Your task to perform on an android device: Empty the shopping cart on newegg. Add "usb-a" to the cart on newegg Image 0: 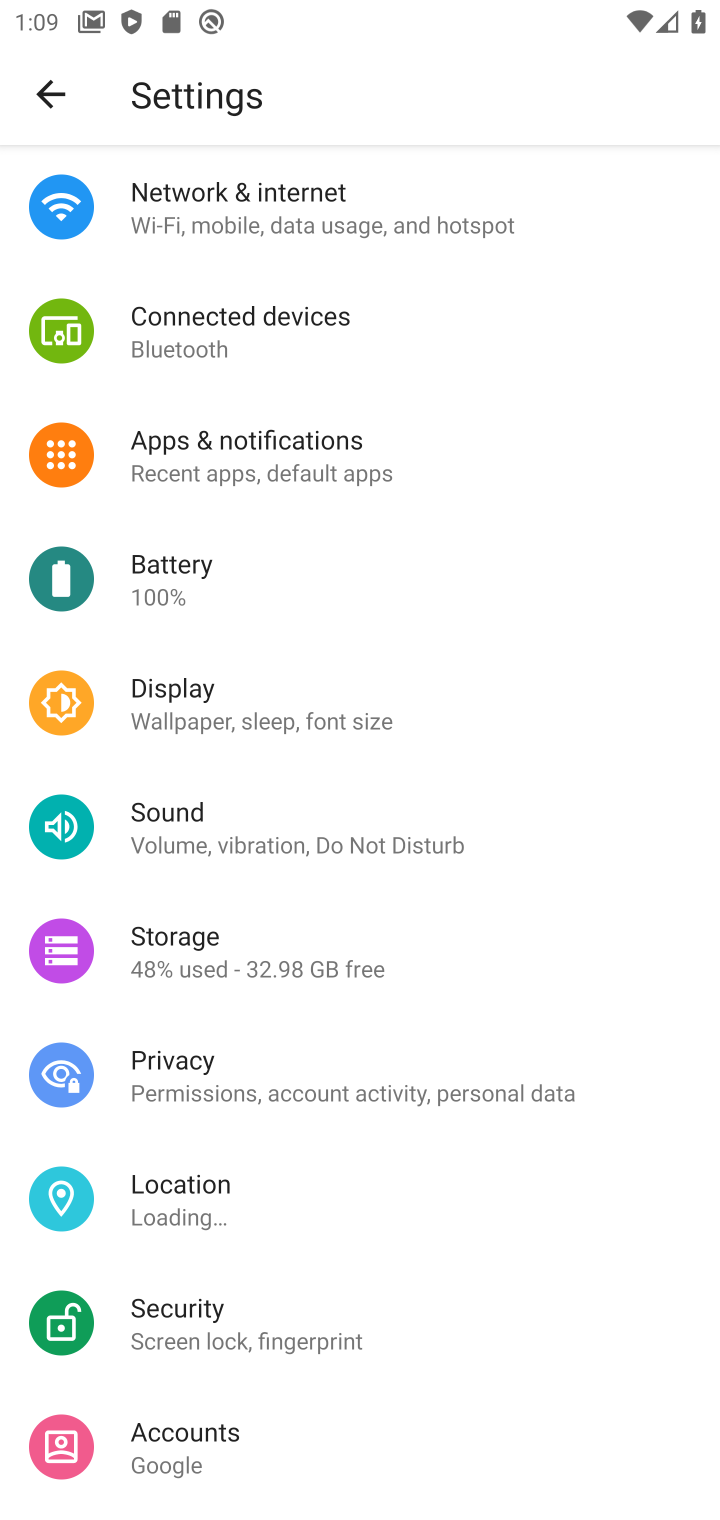
Step 0: press home button
Your task to perform on an android device: Empty the shopping cart on newegg. Add "usb-a" to the cart on newegg Image 1: 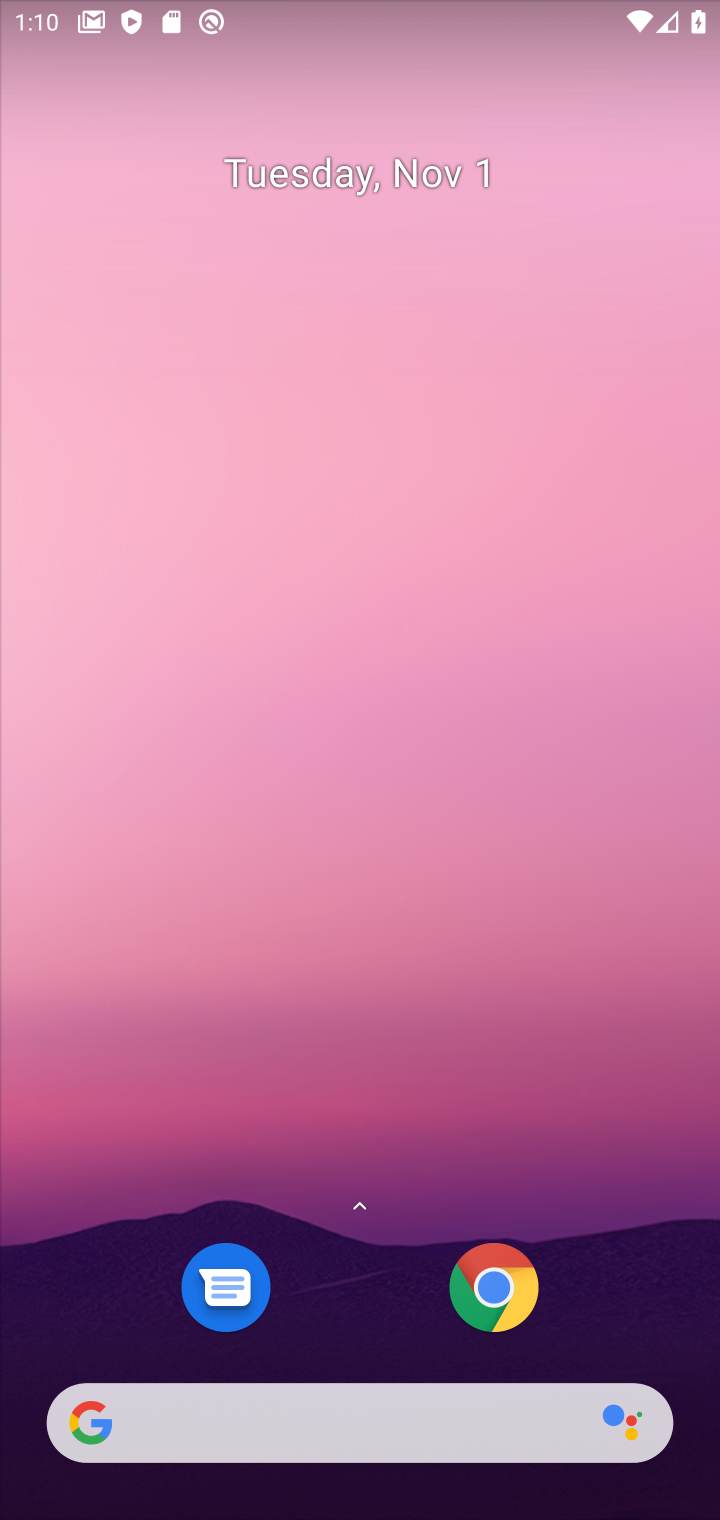
Step 1: click (562, 203)
Your task to perform on an android device: Empty the shopping cart on newegg. Add "usb-a" to the cart on newegg Image 2: 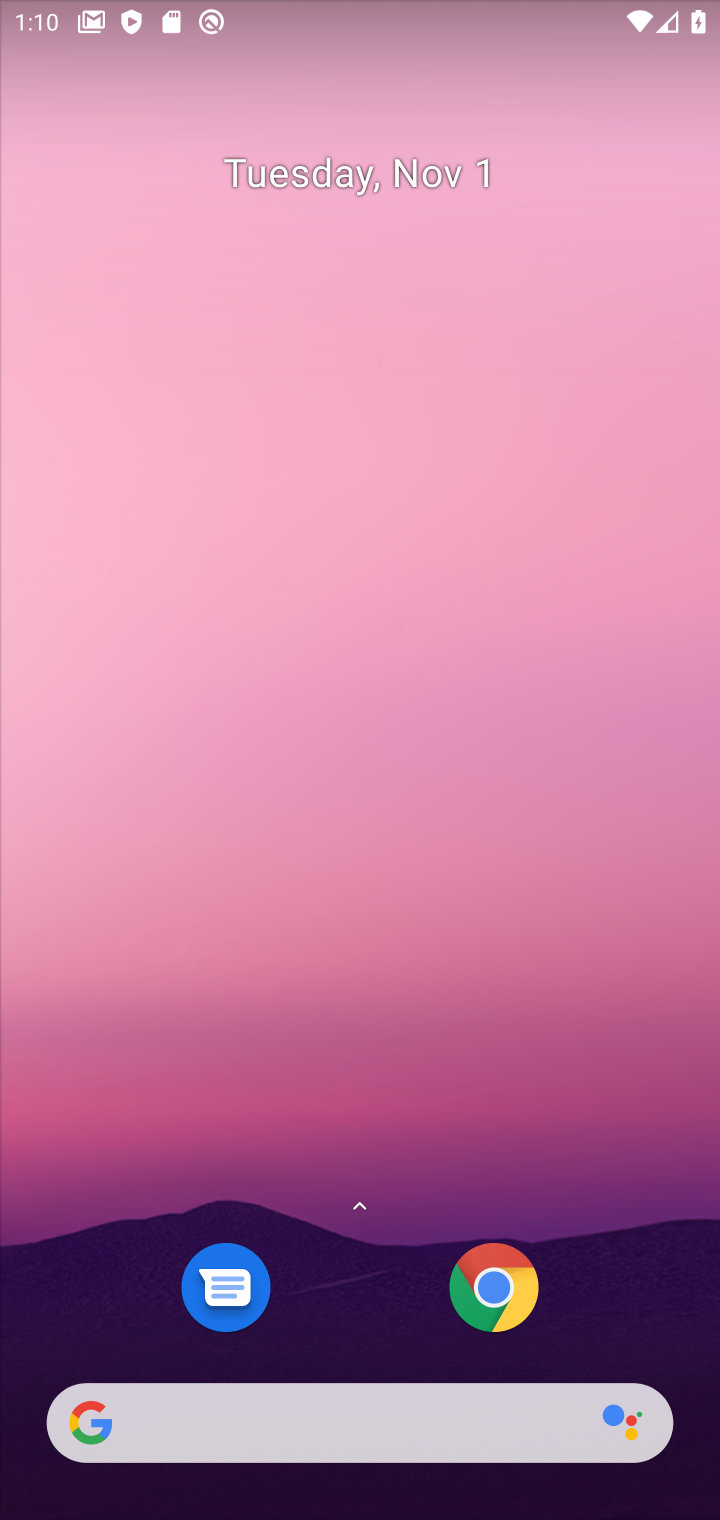
Step 2: drag from (573, 1191) to (517, 276)
Your task to perform on an android device: Empty the shopping cart on newegg. Add "usb-a" to the cart on newegg Image 3: 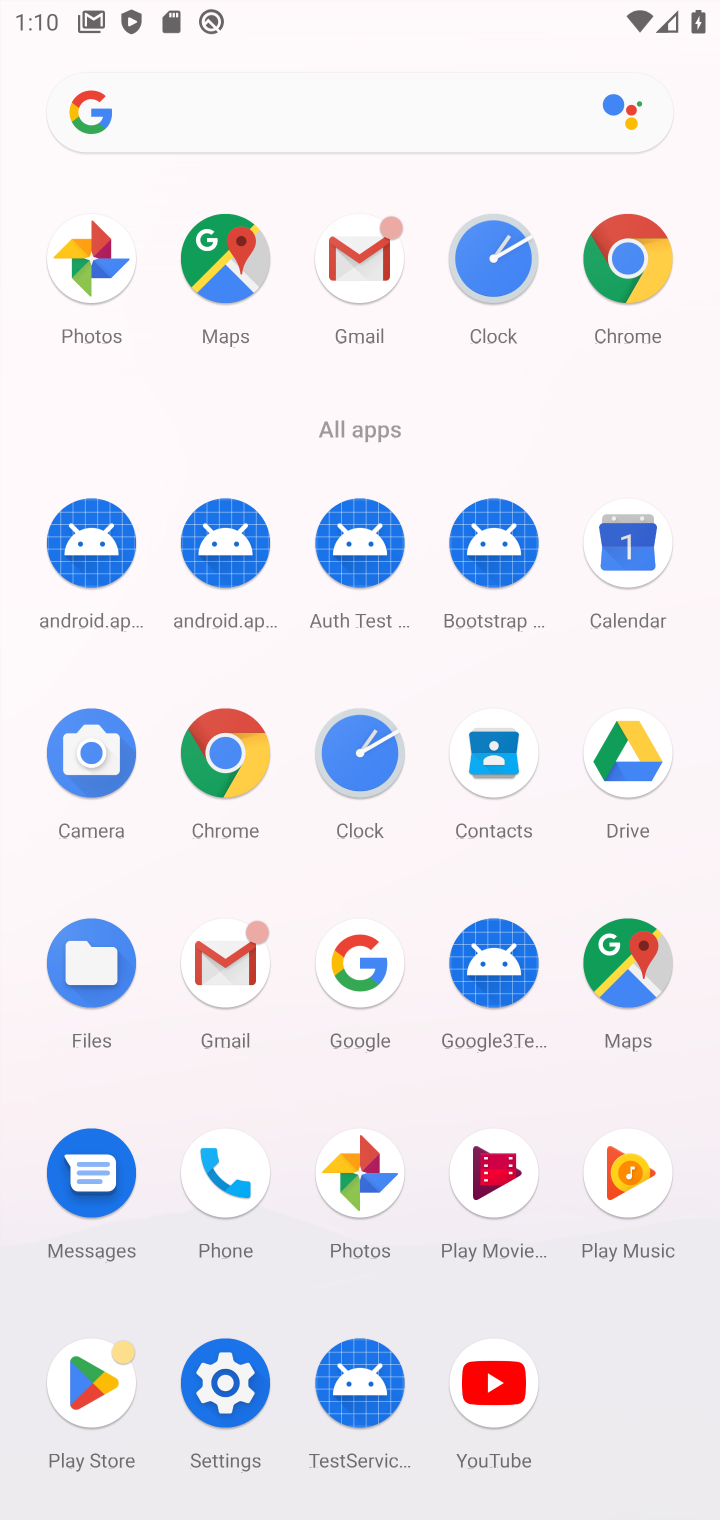
Step 3: click (228, 741)
Your task to perform on an android device: Empty the shopping cart on newegg. Add "usb-a" to the cart on newegg Image 4: 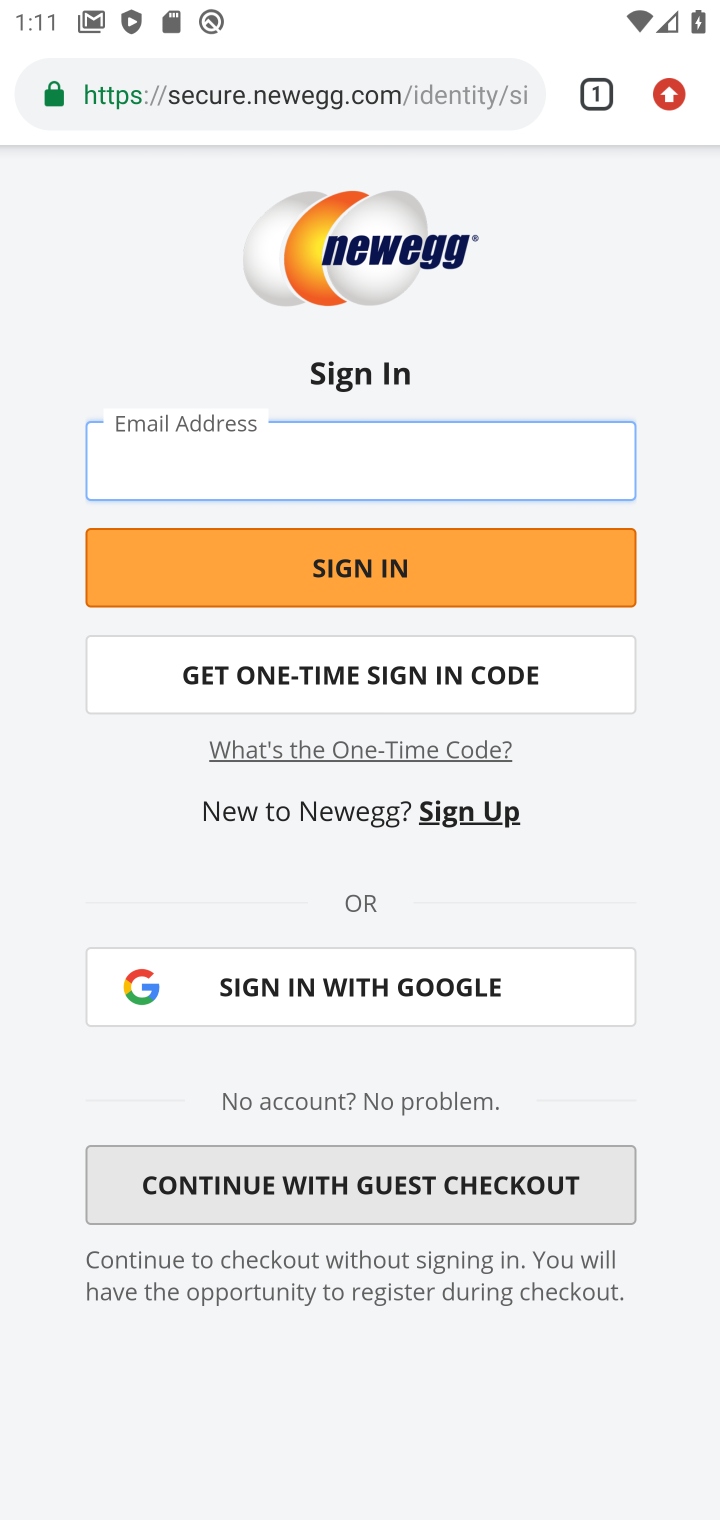
Step 4: click (449, 127)
Your task to perform on an android device: Empty the shopping cart on newegg. Add "usb-a" to the cart on newegg Image 5: 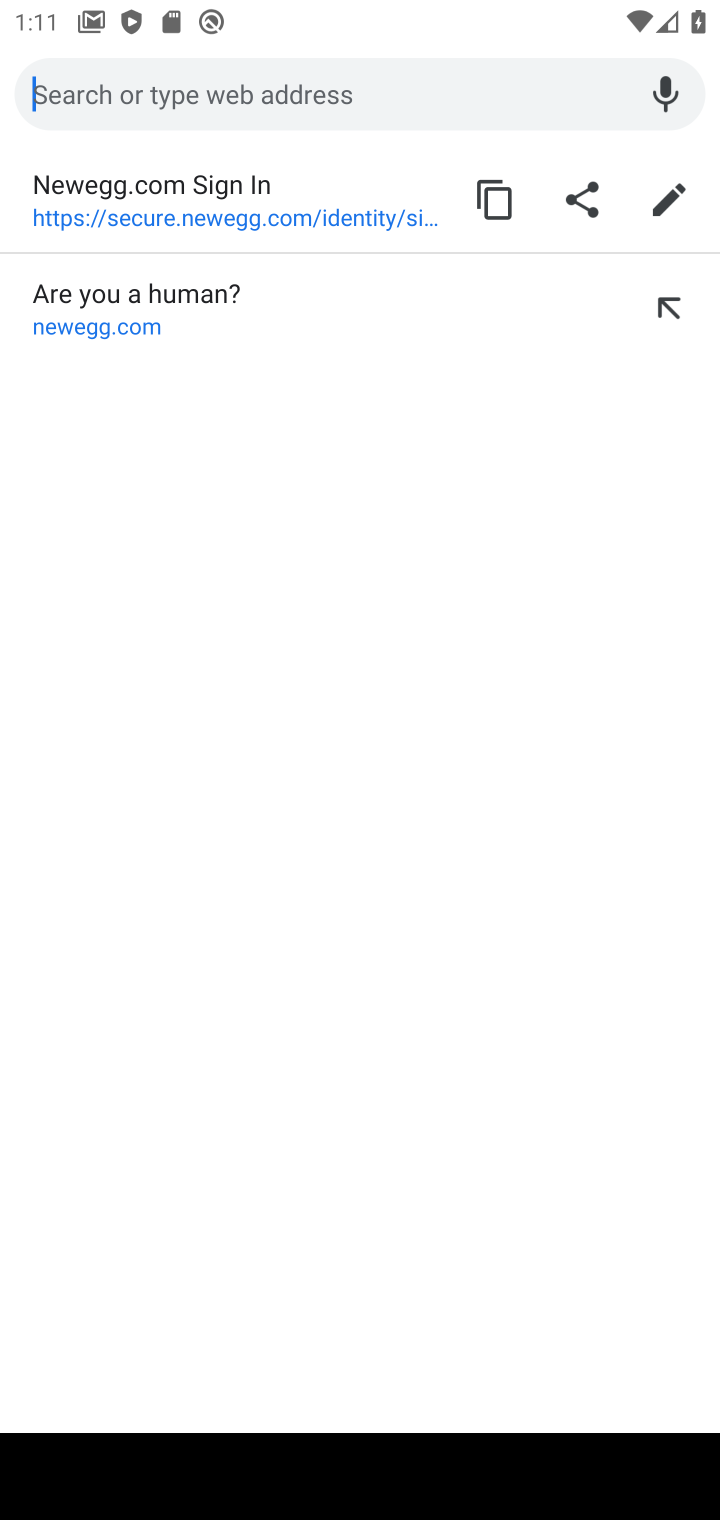
Step 5: type "newegg.com"
Your task to perform on an android device: Empty the shopping cart on newegg. Add "usb-a" to the cart on newegg Image 6: 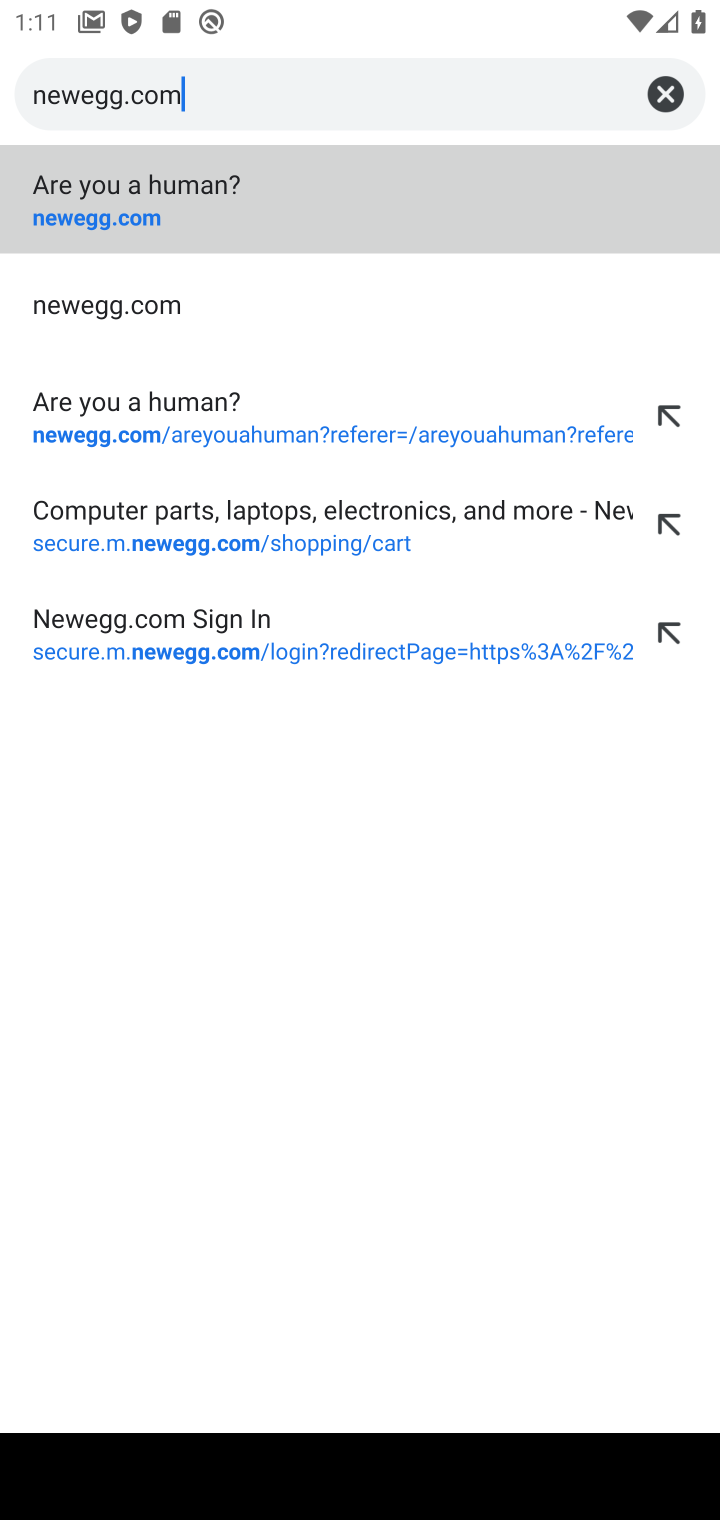
Step 6: press enter
Your task to perform on an android device: Empty the shopping cart on newegg. Add "usb-a" to the cart on newegg Image 7: 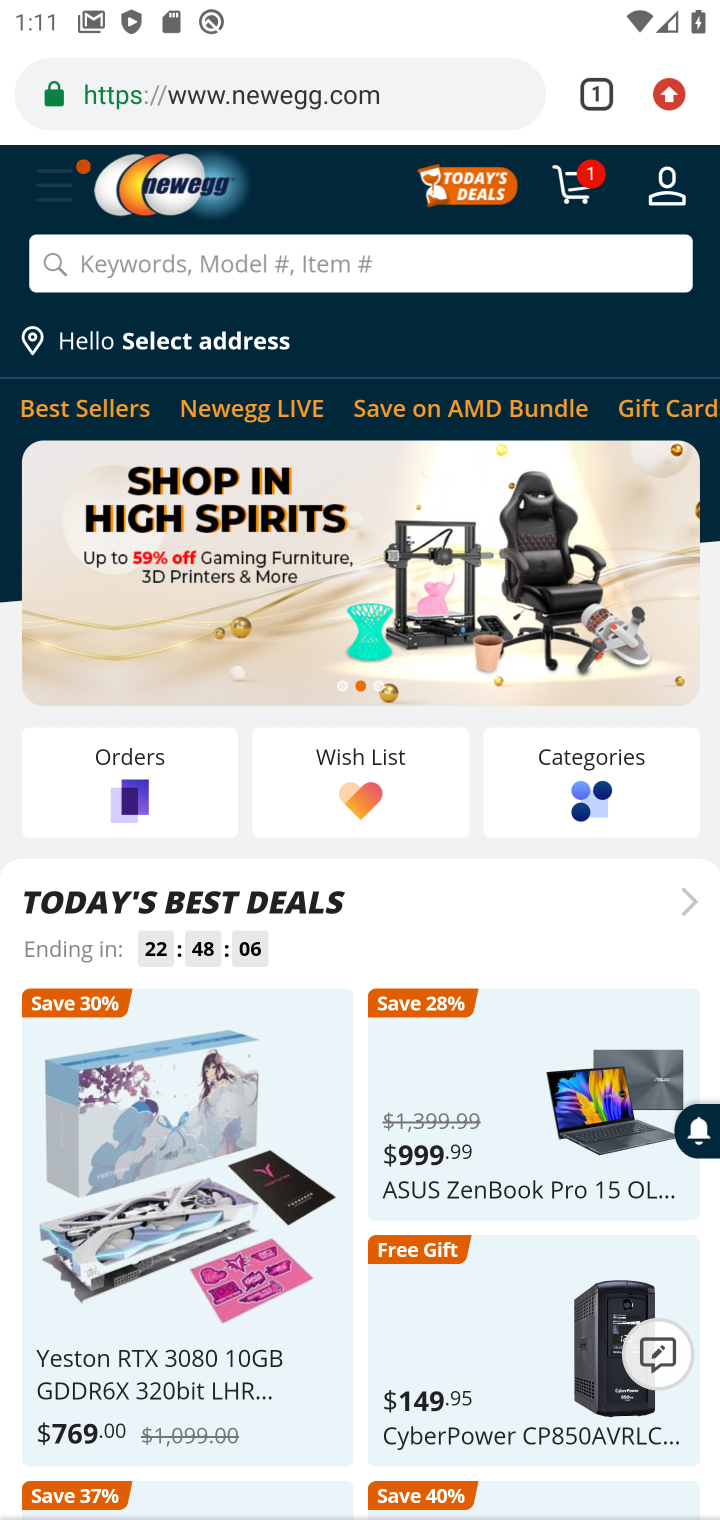
Step 7: click (597, 190)
Your task to perform on an android device: Empty the shopping cart on newegg. Add "usb-a" to the cart on newegg Image 8: 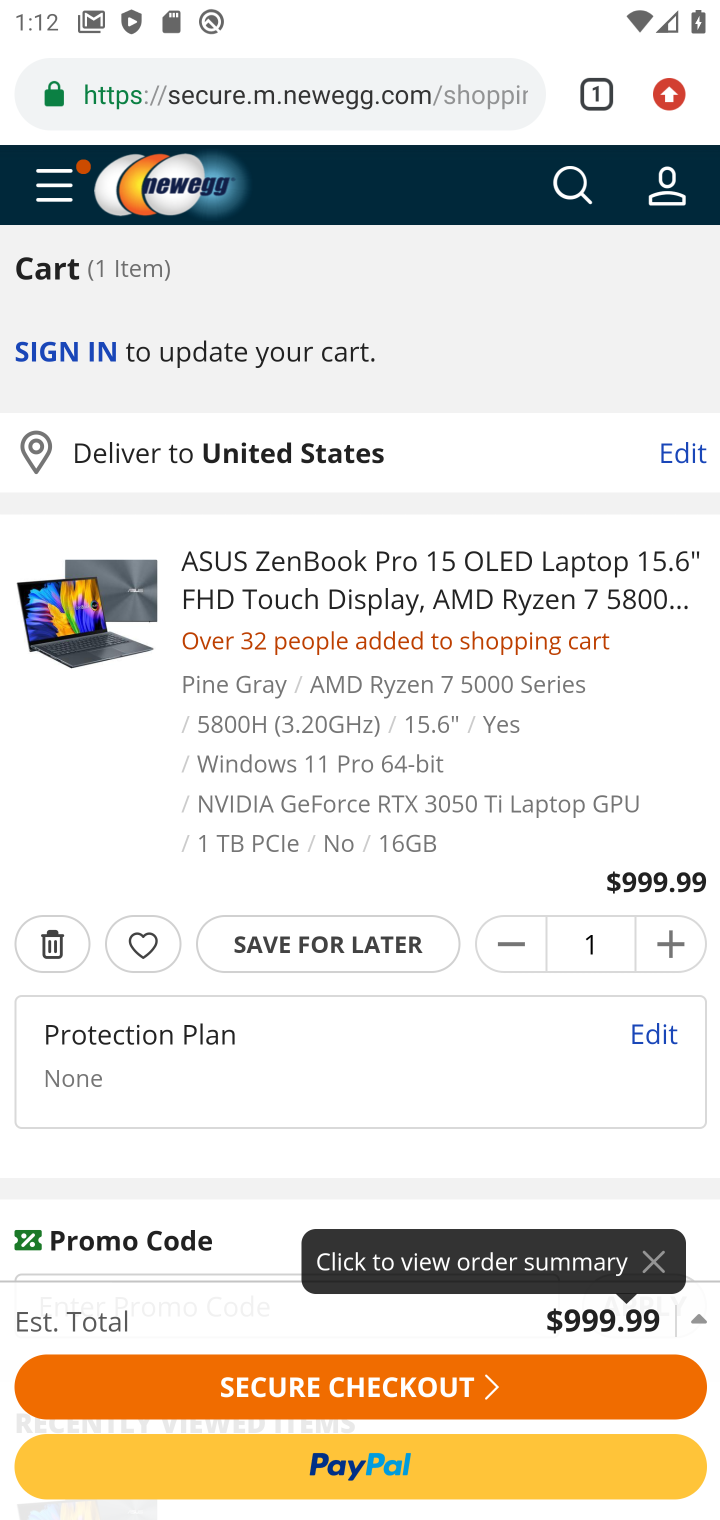
Step 8: click (58, 947)
Your task to perform on an android device: Empty the shopping cart on newegg. Add "usb-a" to the cart on newegg Image 9: 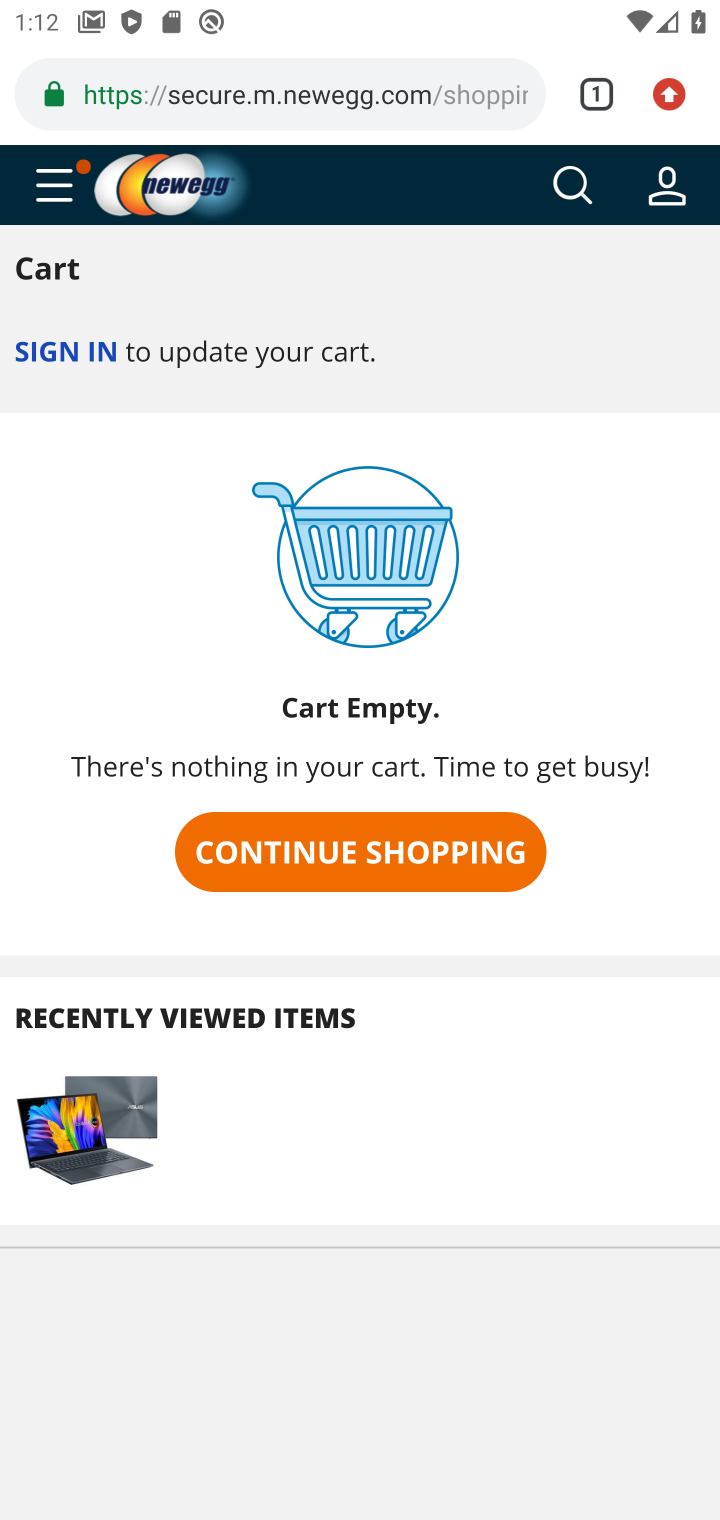
Step 9: click (585, 192)
Your task to perform on an android device: Empty the shopping cart on newegg. Add "usb-a" to the cart on newegg Image 10: 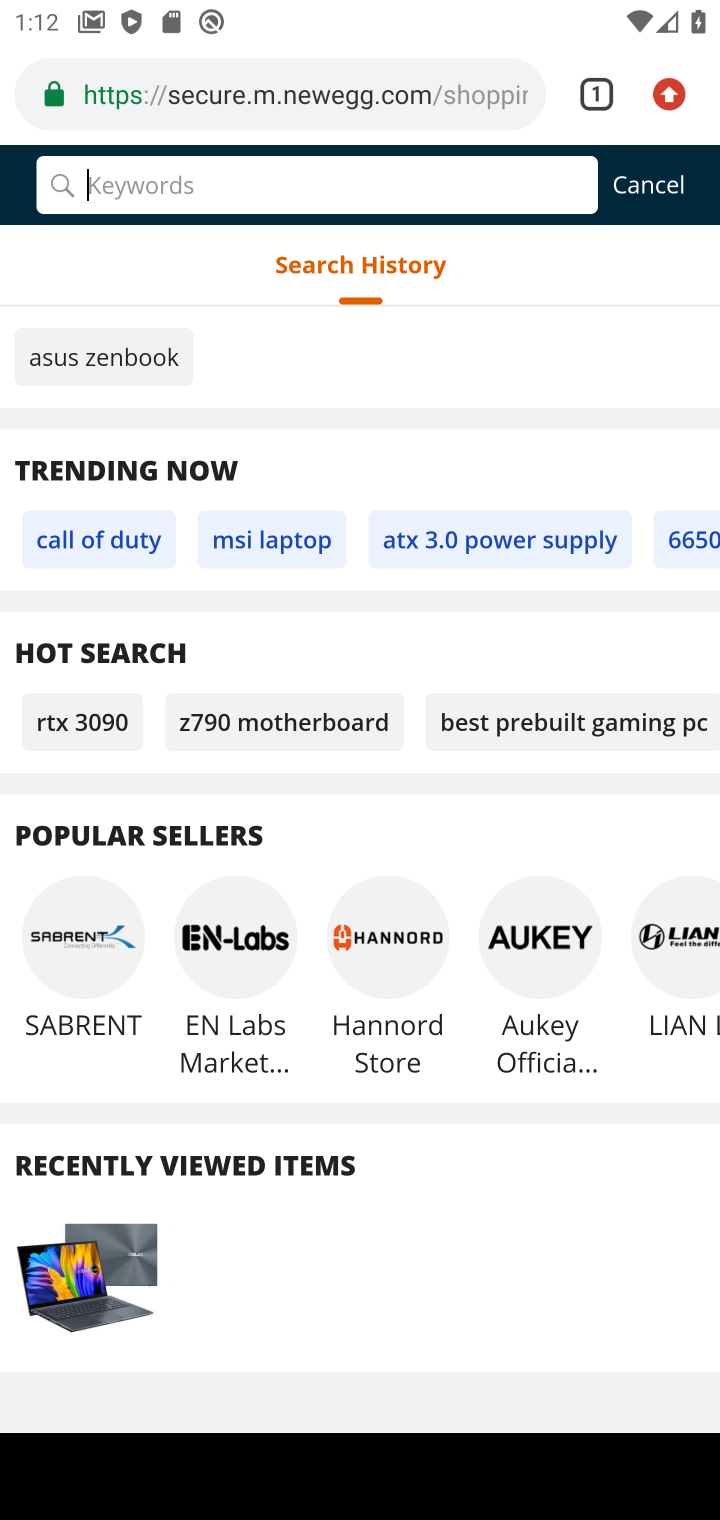
Step 10: type "usb-a"
Your task to perform on an android device: Empty the shopping cart on newegg. Add "usb-a" to the cart on newegg Image 11: 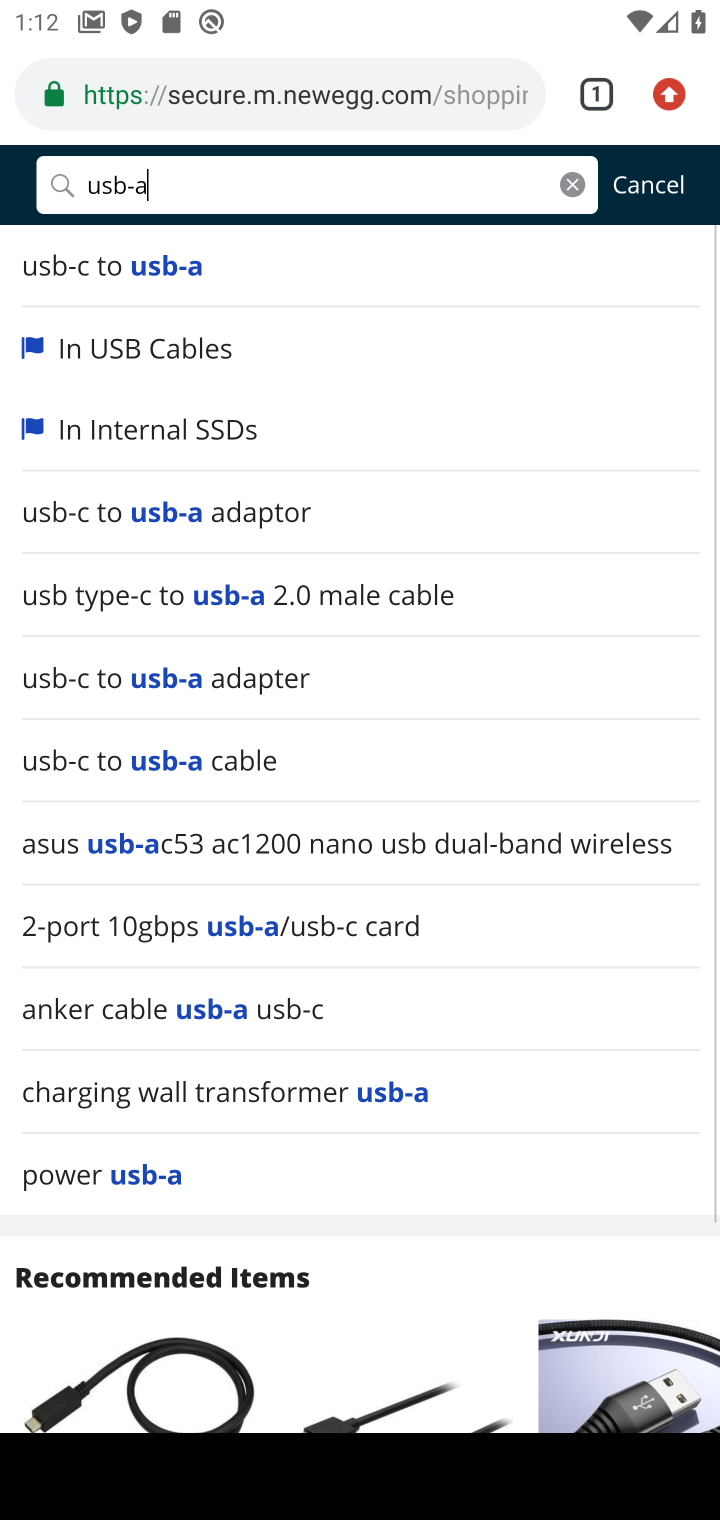
Step 11: press enter
Your task to perform on an android device: Empty the shopping cart on newegg. Add "usb-a" to the cart on newegg Image 12: 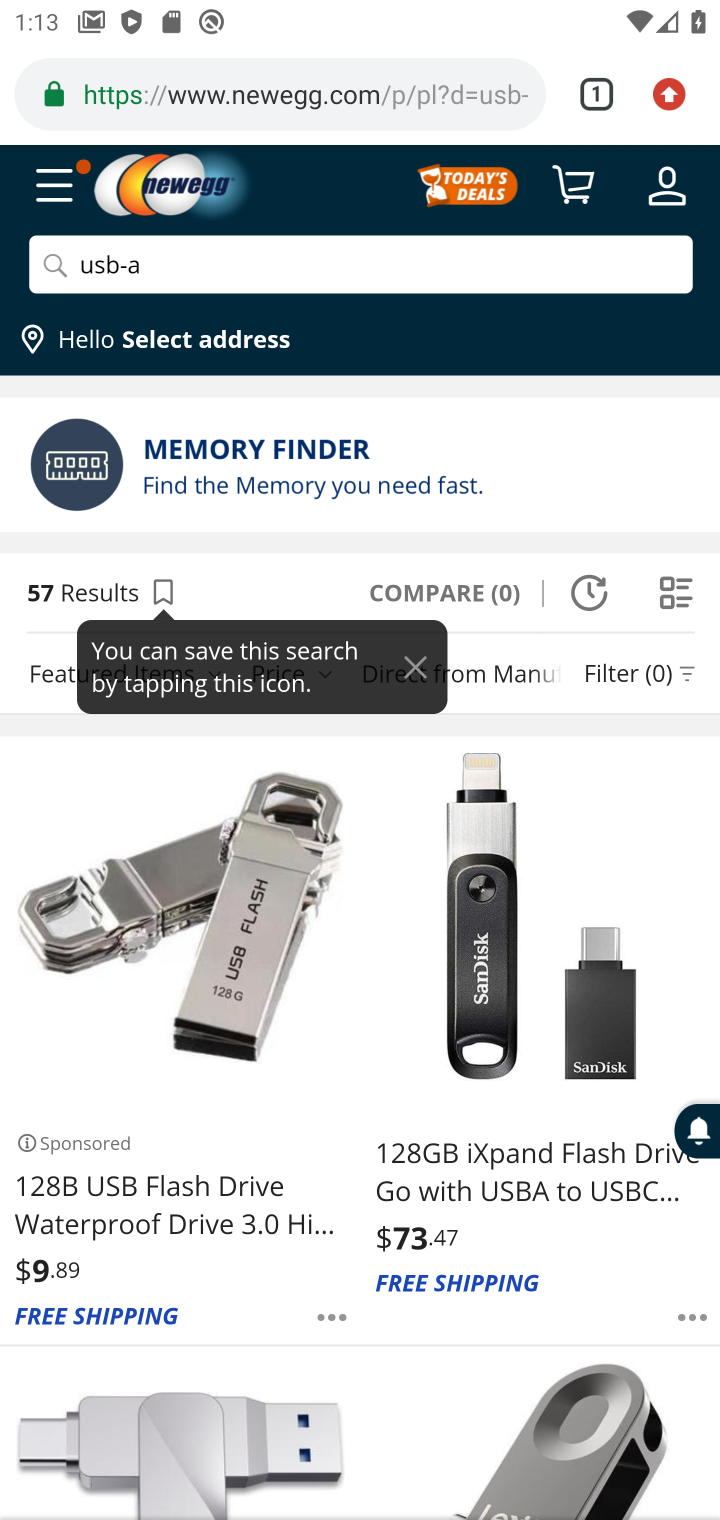
Step 12: drag from (593, 708) to (636, 422)
Your task to perform on an android device: Empty the shopping cart on newegg. Add "usb-a" to the cart on newegg Image 13: 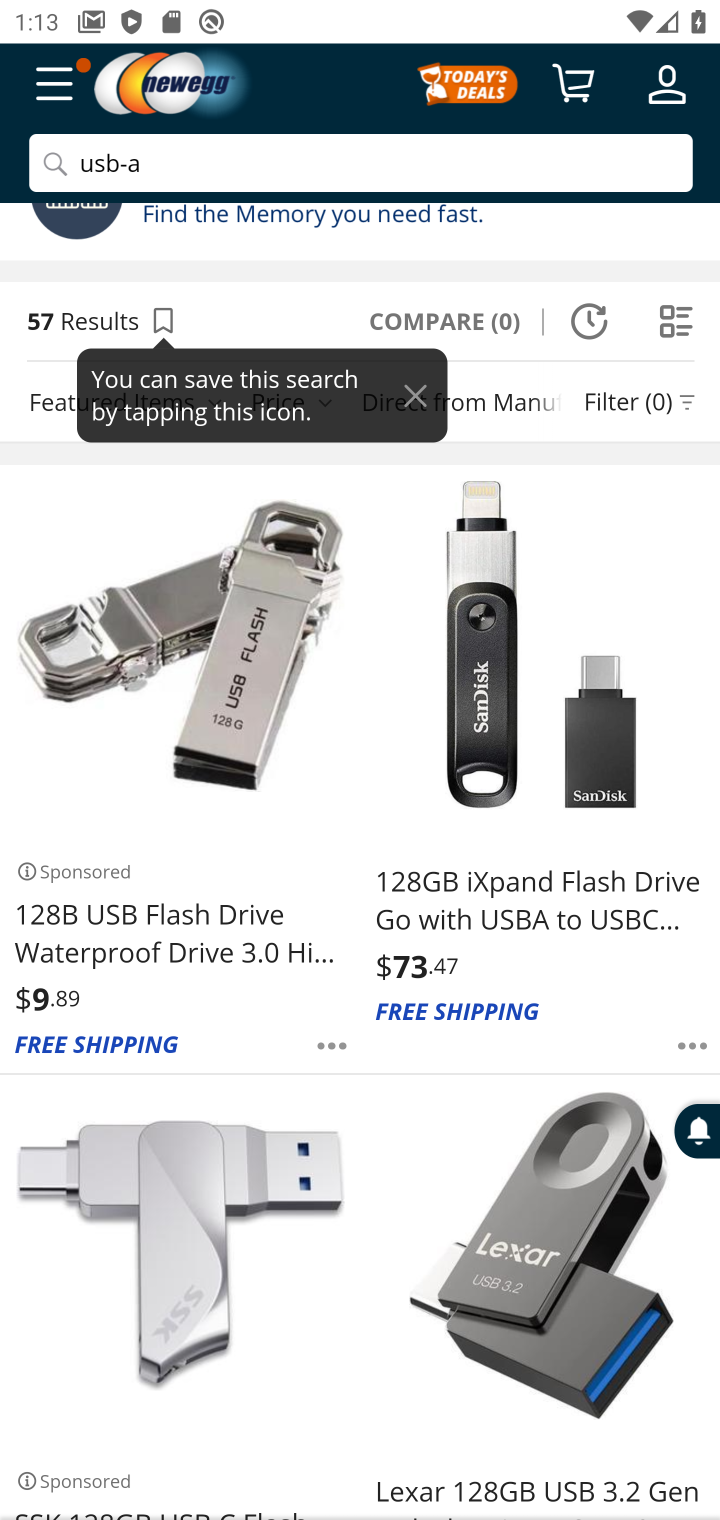
Step 13: click (581, 751)
Your task to perform on an android device: Empty the shopping cart on newegg. Add "usb-a" to the cart on newegg Image 14: 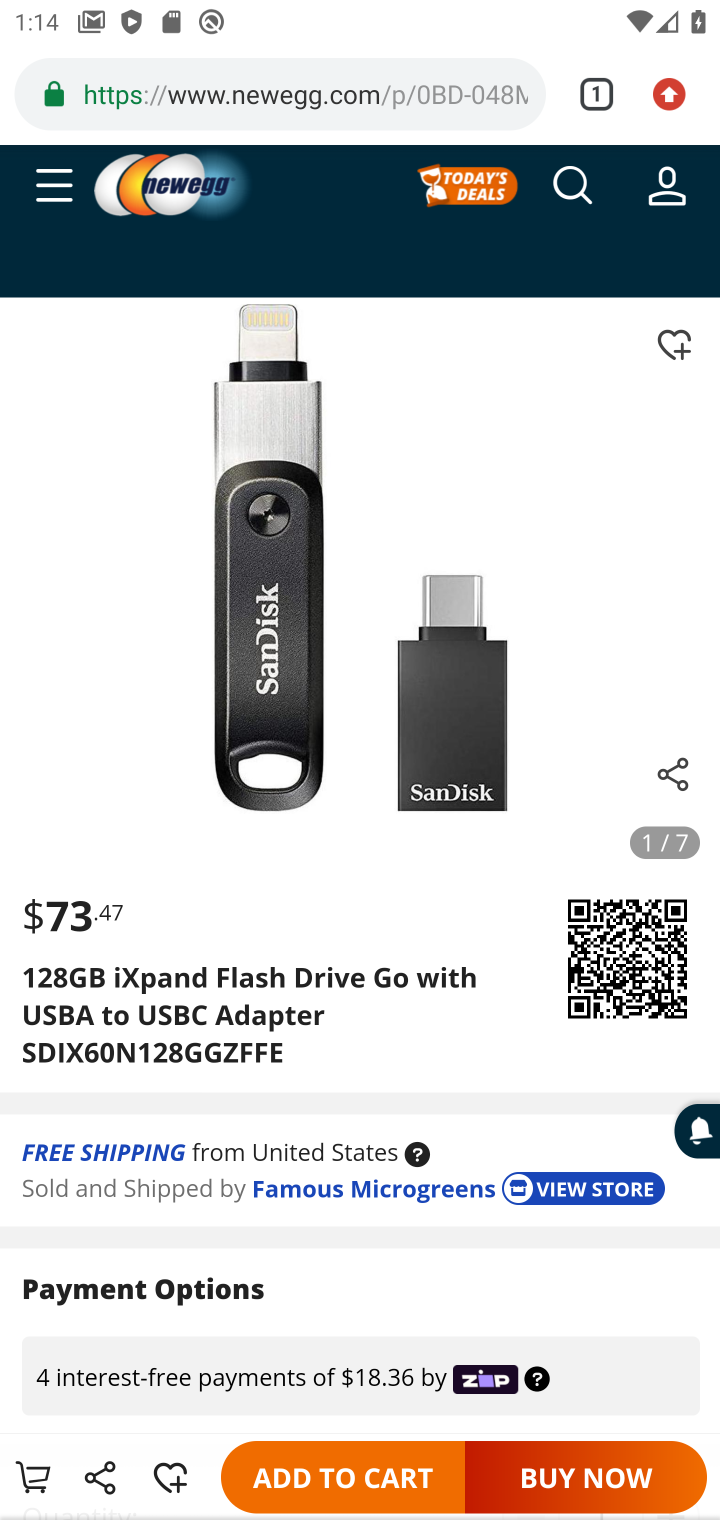
Step 14: click (346, 1482)
Your task to perform on an android device: Empty the shopping cart on newegg. Add "usb-a" to the cart on newegg Image 15: 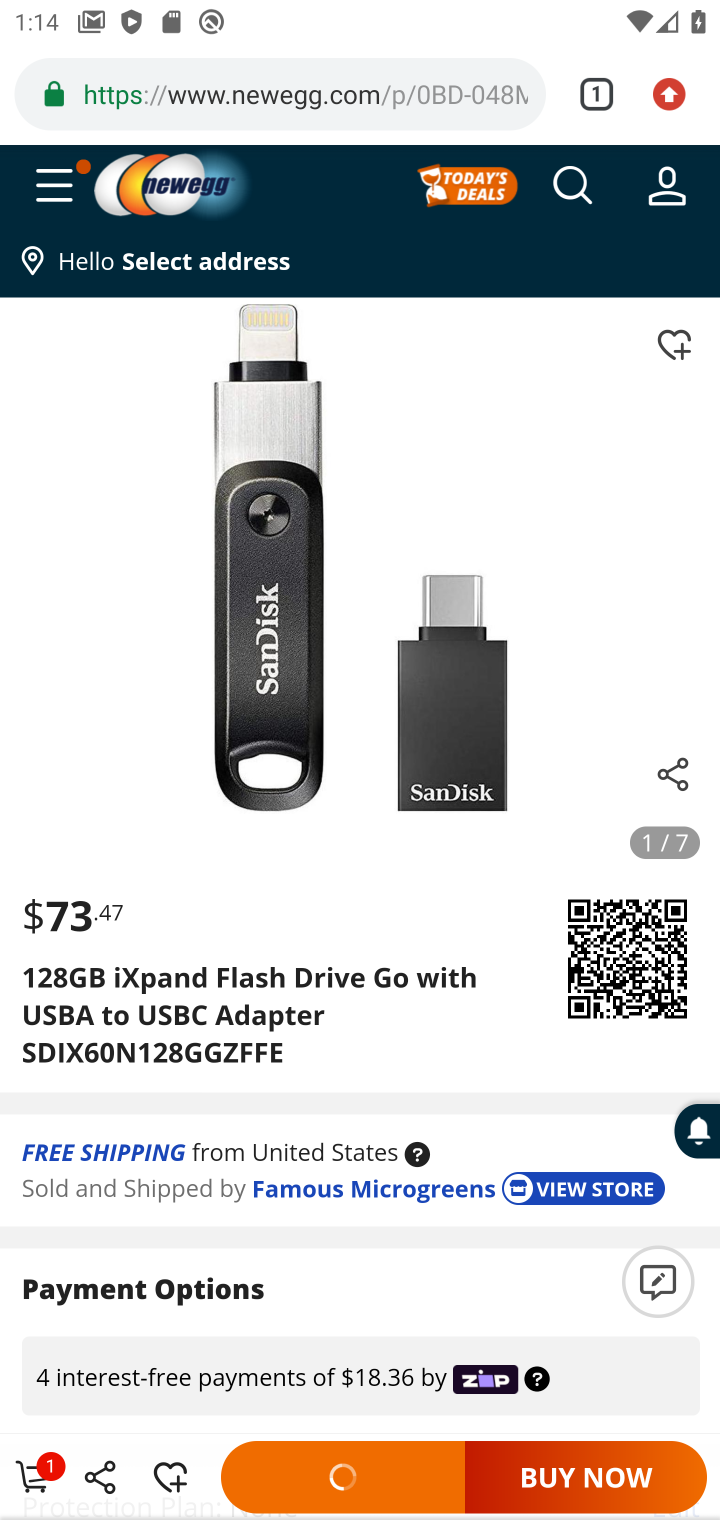
Step 15: task complete